Your task to perform on an android device: move a message to another label in the gmail app Image 0: 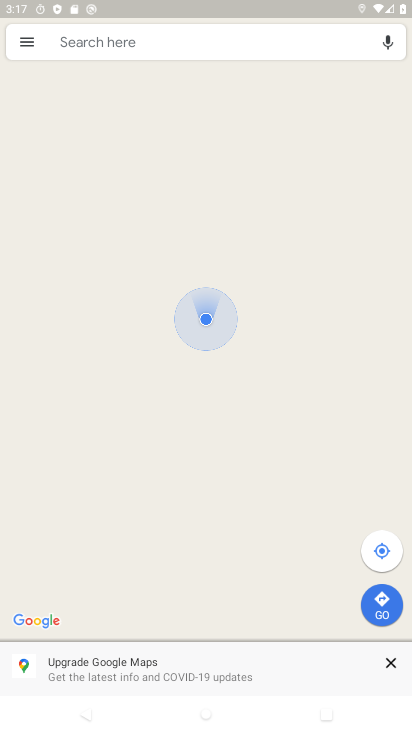
Step 0: press home button
Your task to perform on an android device: move a message to another label in the gmail app Image 1: 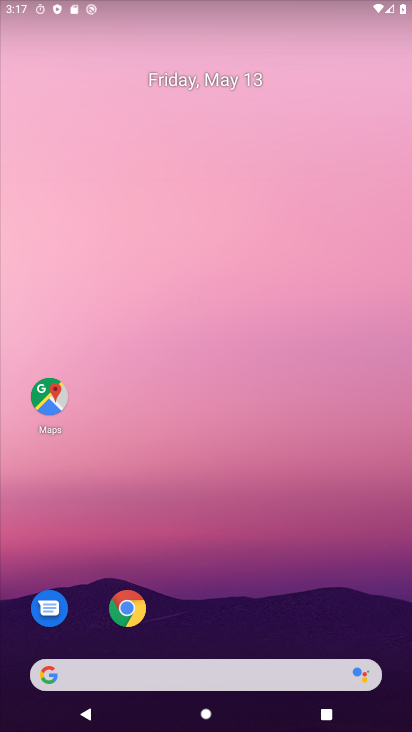
Step 1: drag from (316, 614) to (341, 0)
Your task to perform on an android device: move a message to another label in the gmail app Image 2: 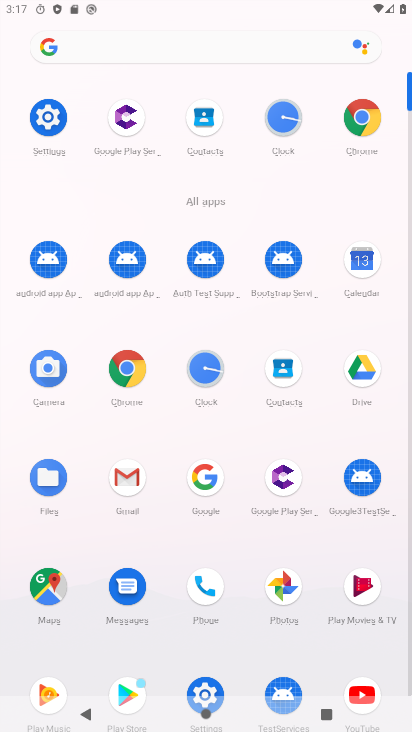
Step 2: click (130, 483)
Your task to perform on an android device: move a message to another label in the gmail app Image 3: 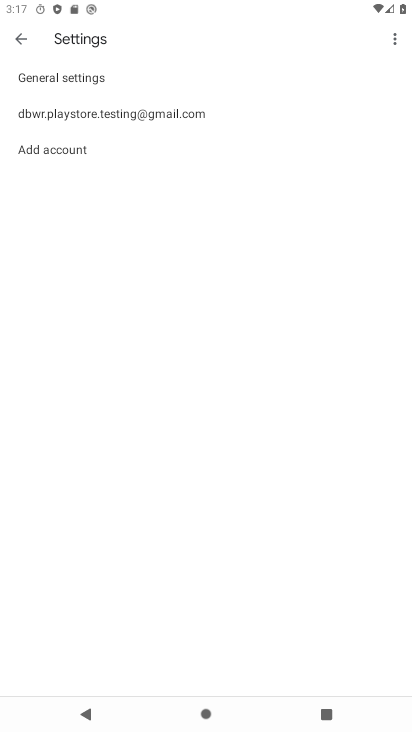
Step 3: click (24, 43)
Your task to perform on an android device: move a message to another label in the gmail app Image 4: 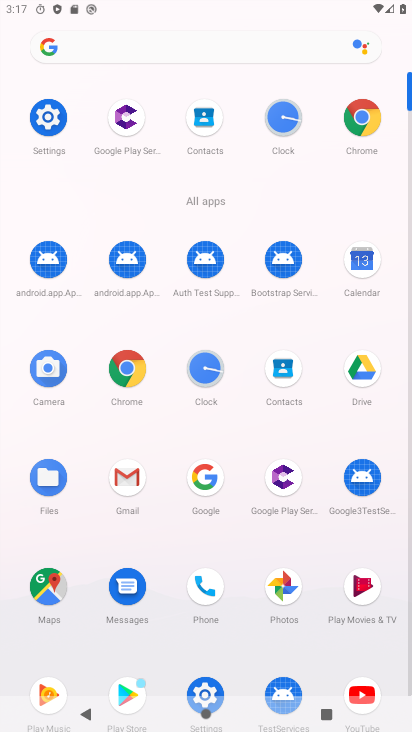
Step 4: click (136, 485)
Your task to perform on an android device: move a message to another label in the gmail app Image 5: 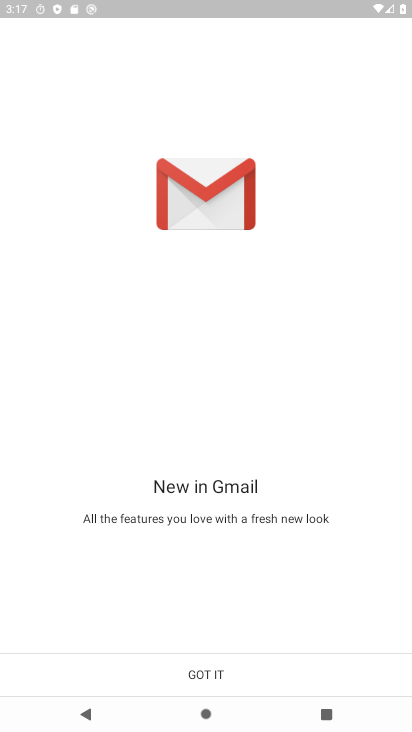
Step 5: click (222, 674)
Your task to perform on an android device: move a message to another label in the gmail app Image 6: 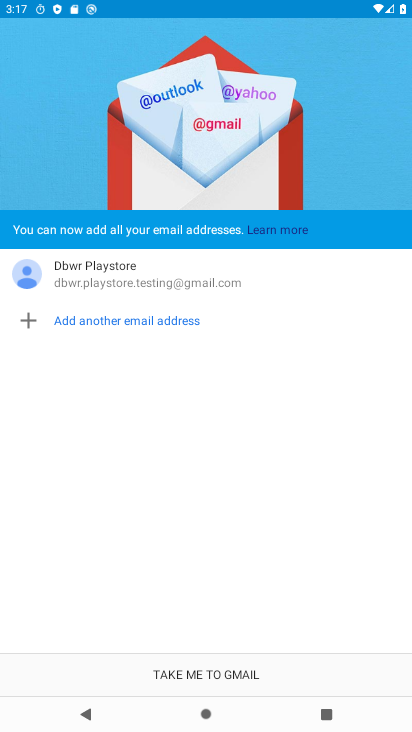
Step 6: click (222, 674)
Your task to perform on an android device: move a message to another label in the gmail app Image 7: 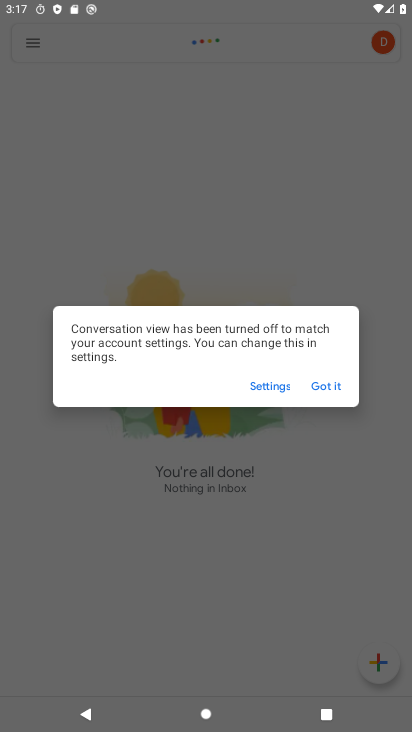
Step 7: click (329, 383)
Your task to perform on an android device: move a message to another label in the gmail app Image 8: 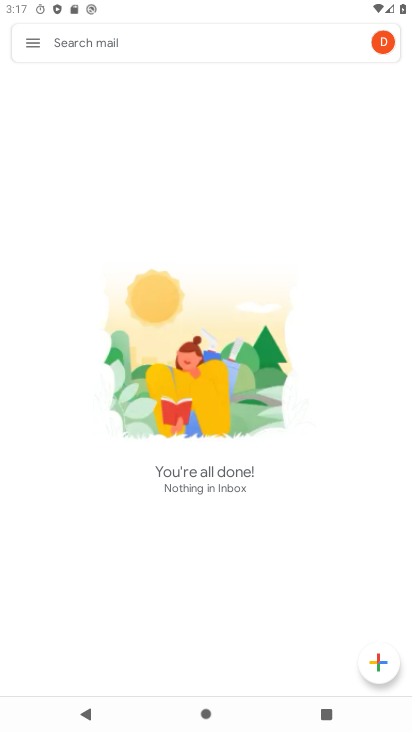
Step 8: click (30, 34)
Your task to perform on an android device: move a message to another label in the gmail app Image 9: 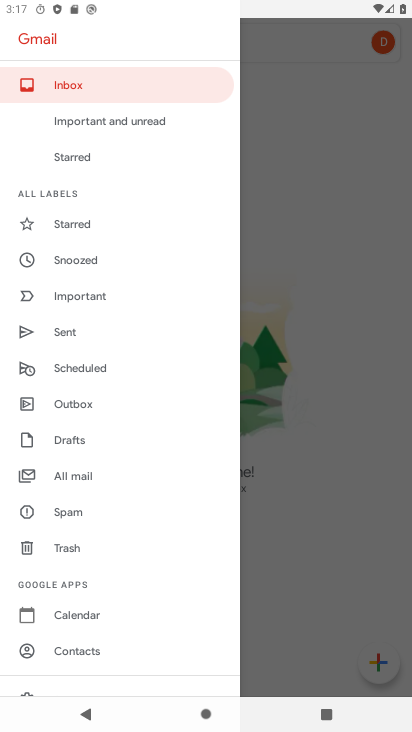
Step 9: click (342, 369)
Your task to perform on an android device: move a message to another label in the gmail app Image 10: 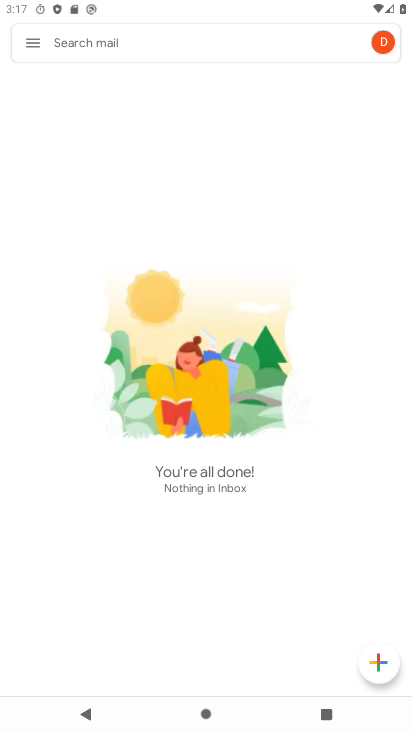
Step 10: task complete